Your task to perform on an android device: Go to Maps Image 0: 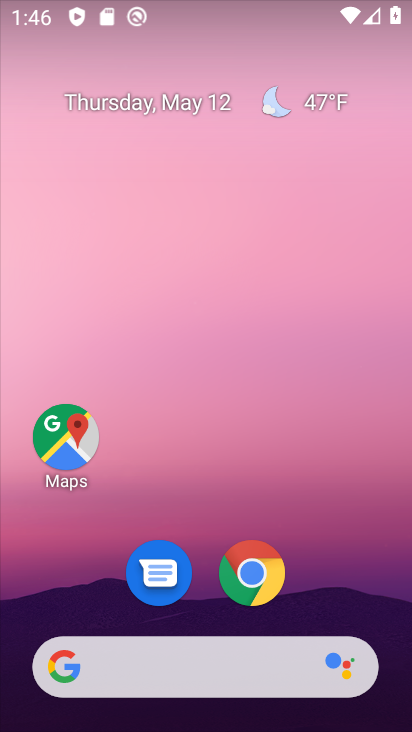
Step 0: click (64, 450)
Your task to perform on an android device: Go to Maps Image 1: 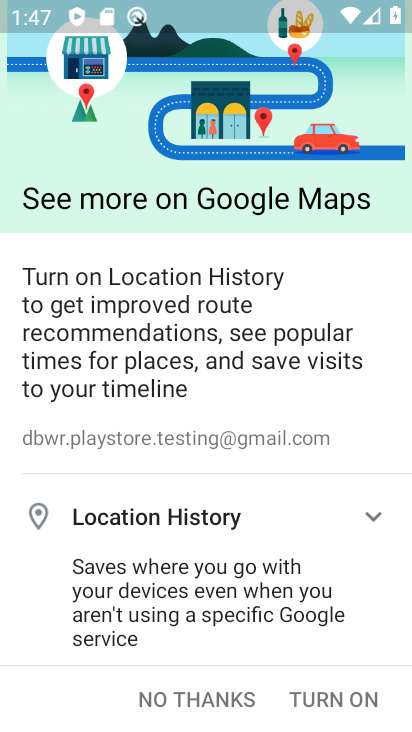
Step 1: click (356, 697)
Your task to perform on an android device: Go to Maps Image 2: 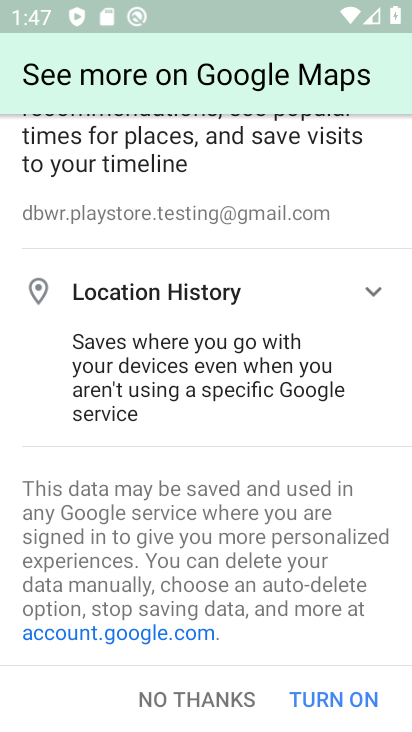
Step 2: click (356, 697)
Your task to perform on an android device: Go to Maps Image 3: 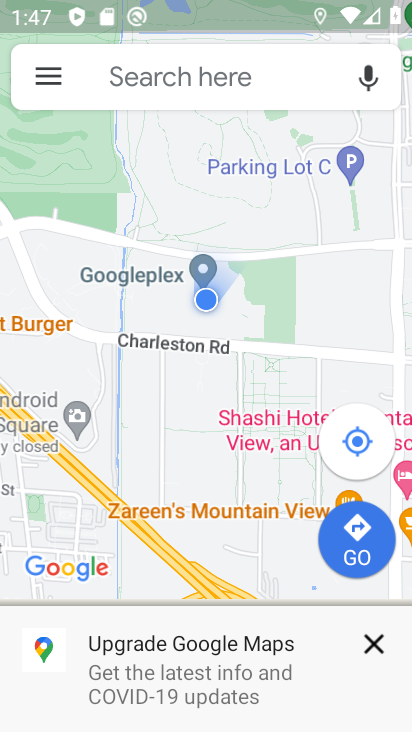
Step 3: task complete